Your task to perform on an android device: Play the last video I watched on Youtube Image 0: 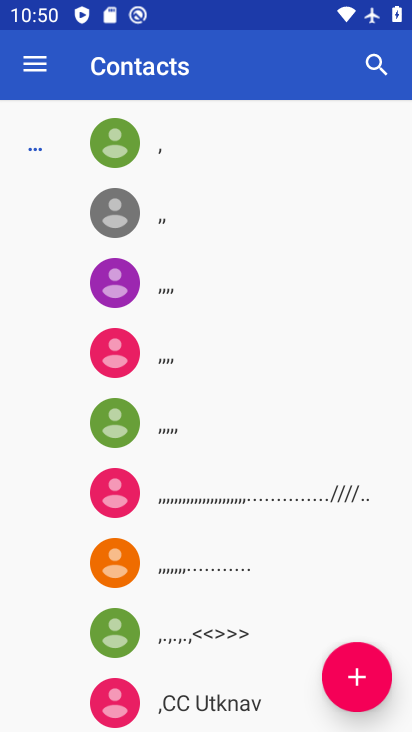
Step 0: press back button
Your task to perform on an android device: Play the last video I watched on Youtube Image 1: 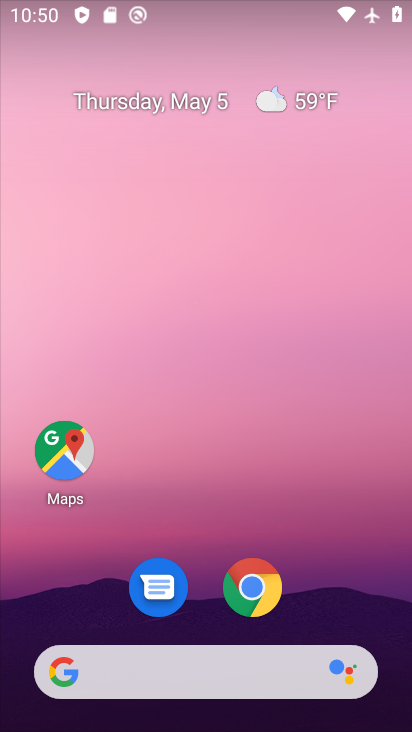
Step 1: drag from (374, 630) to (312, 0)
Your task to perform on an android device: Play the last video I watched on Youtube Image 2: 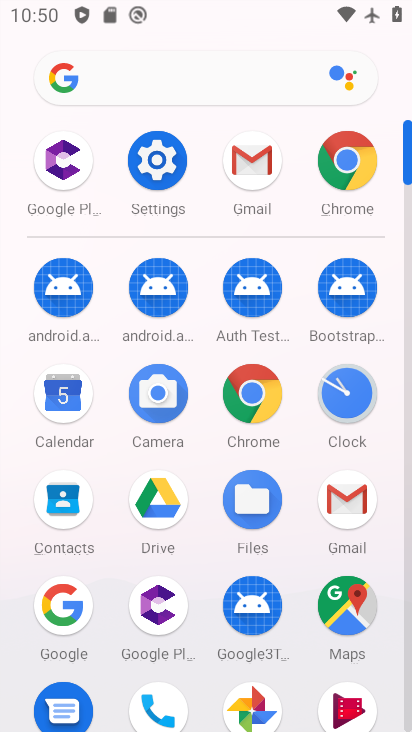
Step 2: drag from (7, 671) to (18, 315)
Your task to perform on an android device: Play the last video I watched on Youtube Image 3: 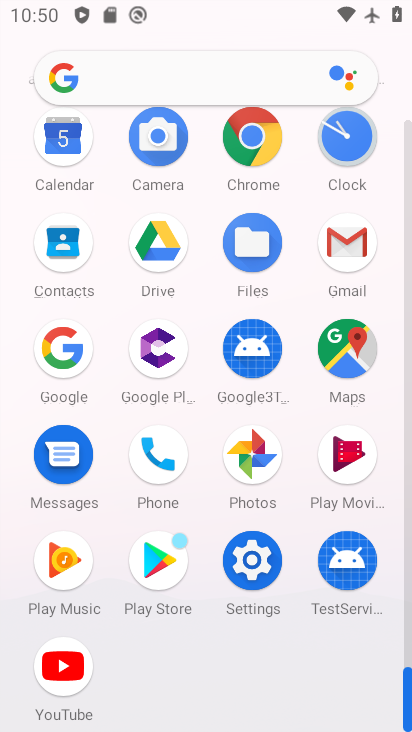
Step 3: click (62, 661)
Your task to perform on an android device: Play the last video I watched on Youtube Image 4: 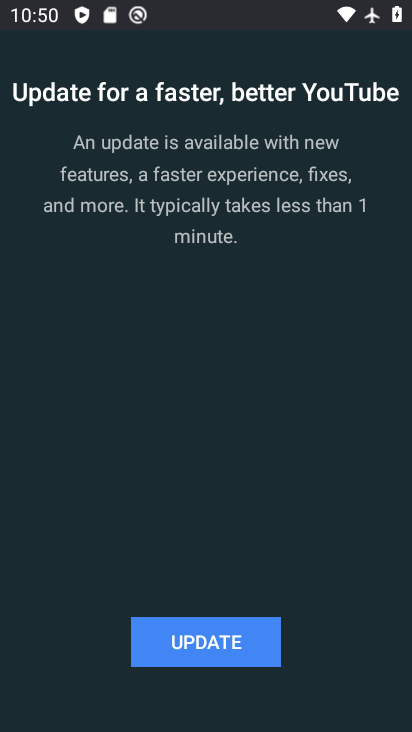
Step 4: click (178, 640)
Your task to perform on an android device: Play the last video I watched on Youtube Image 5: 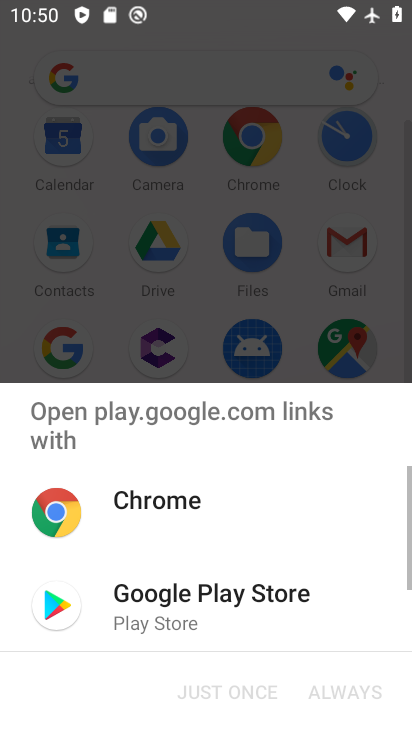
Step 5: click (187, 598)
Your task to perform on an android device: Play the last video I watched on Youtube Image 6: 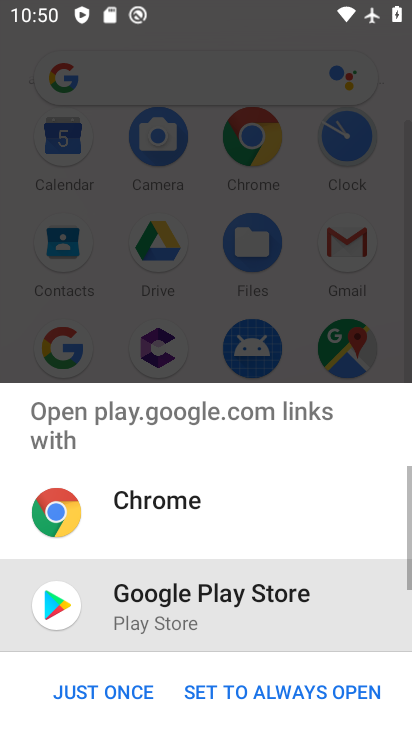
Step 6: click (118, 689)
Your task to perform on an android device: Play the last video I watched on Youtube Image 7: 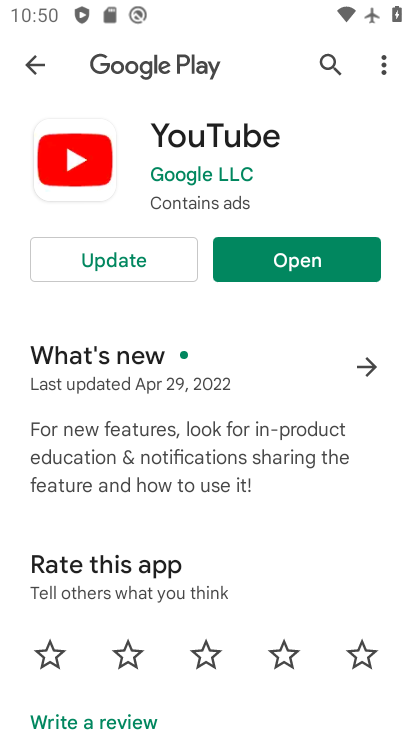
Step 7: click (127, 261)
Your task to perform on an android device: Play the last video I watched on Youtube Image 8: 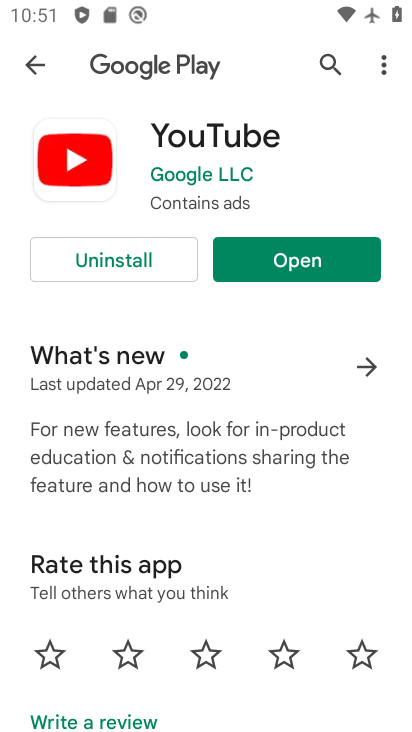
Step 8: click (262, 261)
Your task to perform on an android device: Play the last video I watched on Youtube Image 9: 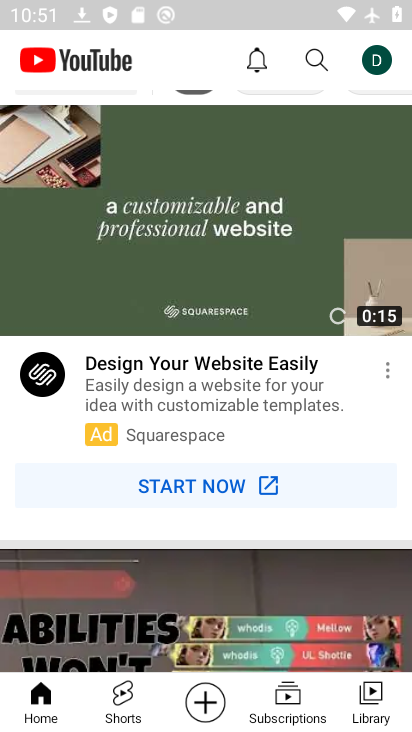
Step 9: click (352, 696)
Your task to perform on an android device: Play the last video I watched on Youtube Image 10: 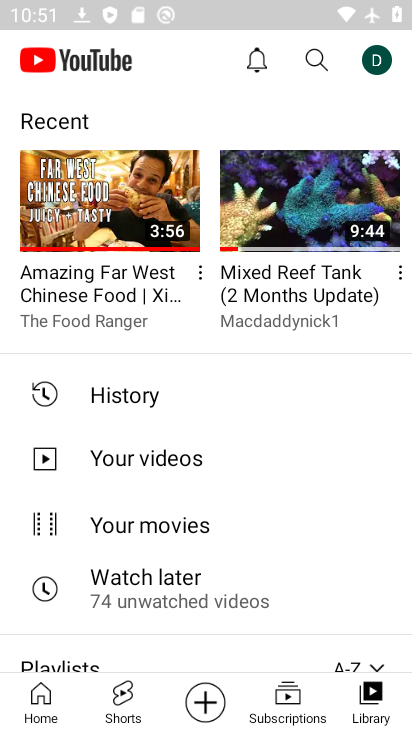
Step 10: click (131, 204)
Your task to perform on an android device: Play the last video I watched on Youtube Image 11: 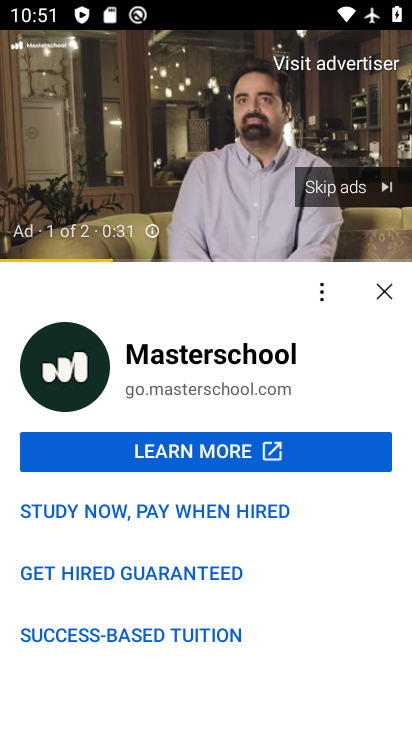
Step 11: click (343, 188)
Your task to perform on an android device: Play the last video I watched on Youtube Image 12: 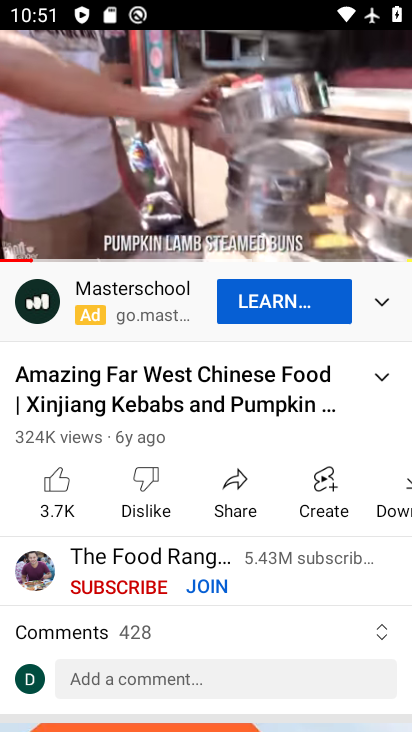
Step 12: task complete